Your task to perform on an android device: Open eBay Image 0: 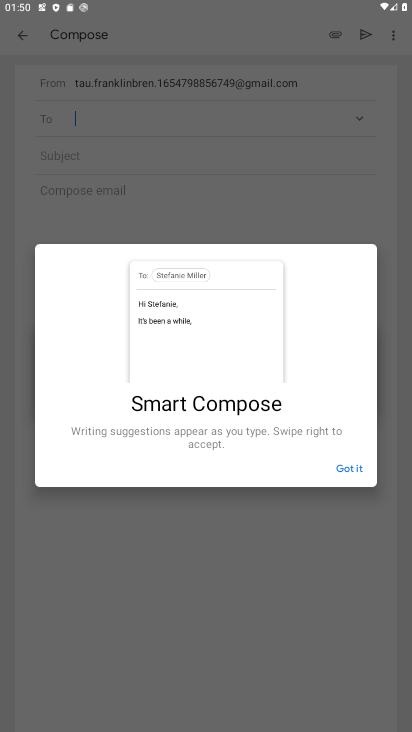
Step 0: press home button
Your task to perform on an android device: Open eBay Image 1: 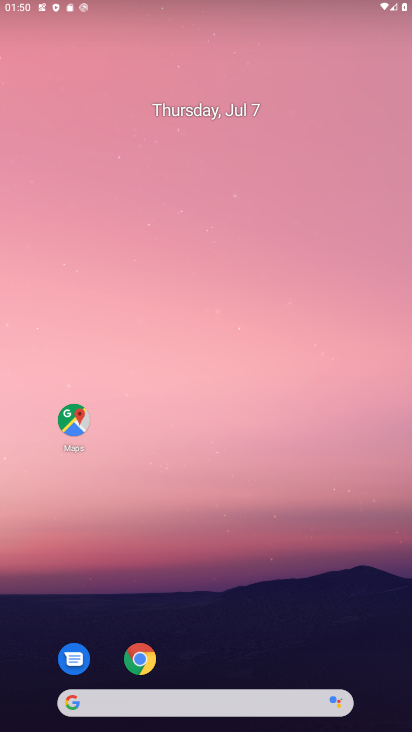
Step 1: drag from (220, 501) to (268, 97)
Your task to perform on an android device: Open eBay Image 2: 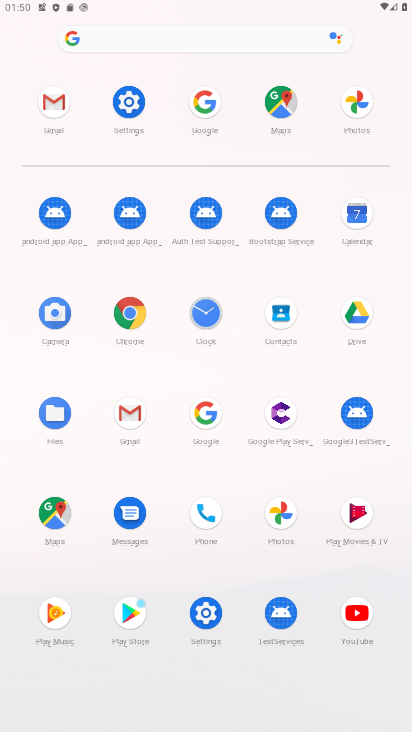
Step 2: click (211, 426)
Your task to perform on an android device: Open eBay Image 3: 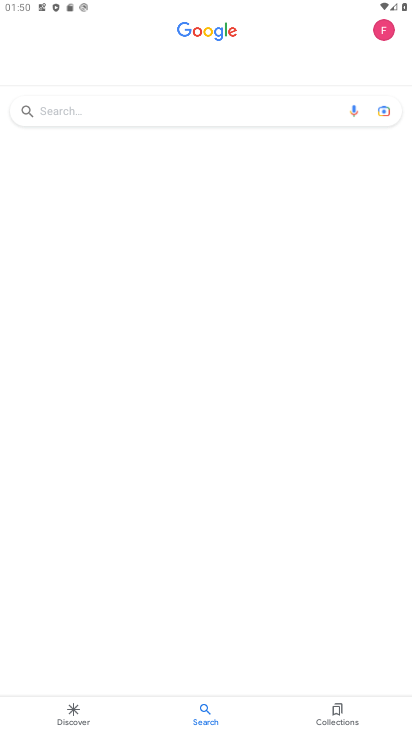
Step 3: click (176, 115)
Your task to perform on an android device: Open eBay Image 4: 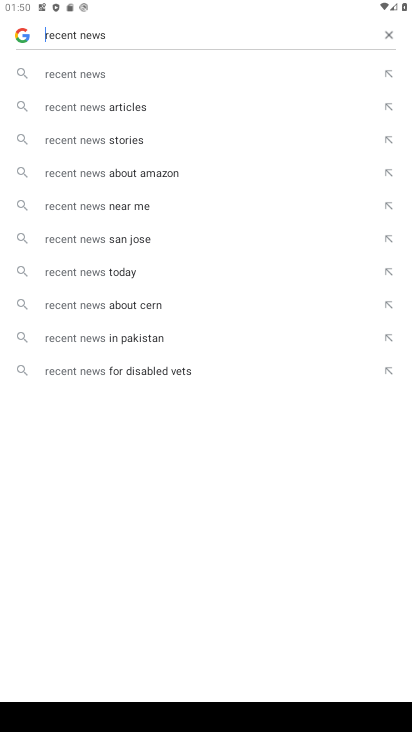
Step 4: click (391, 36)
Your task to perform on an android device: Open eBay Image 5: 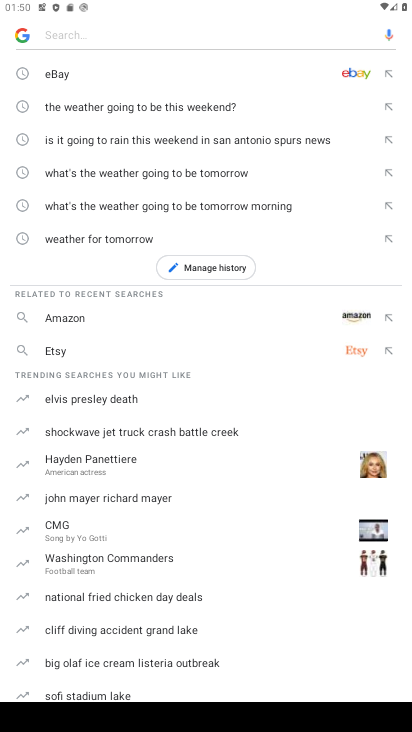
Step 5: click (151, 83)
Your task to perform on an android device: Open eBay Image 6: 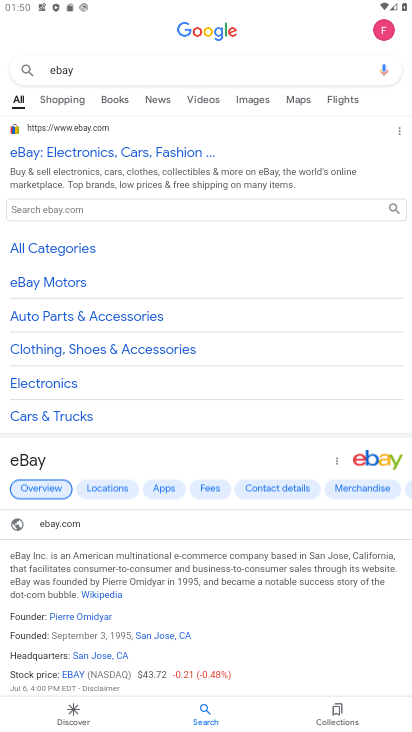
Step 6: click (86, 148)
Your task to perform on an android device: Open eBay Image 7: 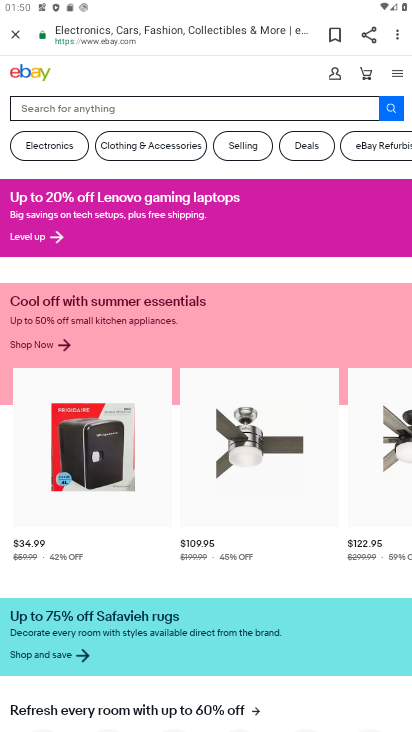
Step 7: task complete